Your task to perform on an android device: change notification settings in the gmail app Image 0: 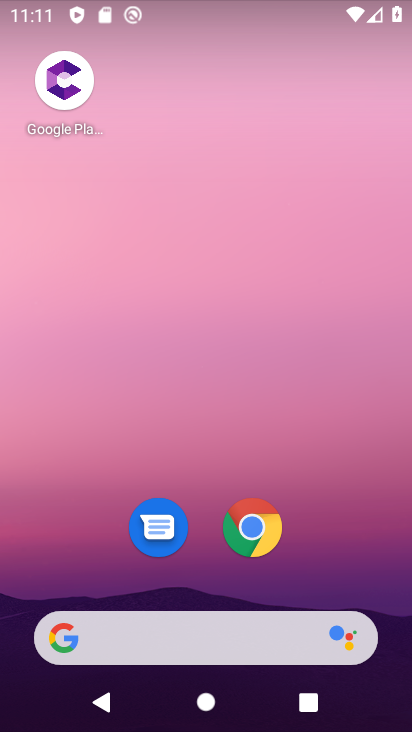
Step 0: drag from (201, 637) to (206, 83)
Your task to perform on an android device: change notification settings in the gmail app Image 1: 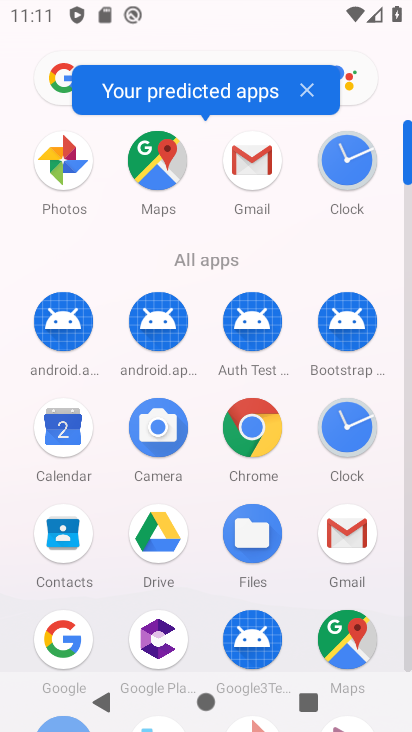
Step 1: click (344, 527)
Your task to perform on an android device: change notification settings in the gmail app Image 2: 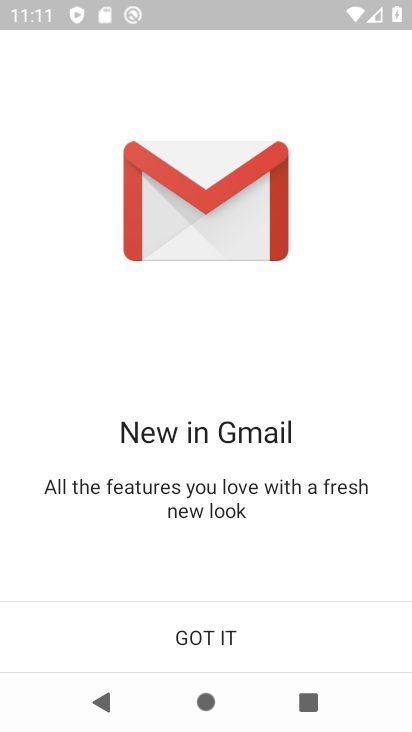
Step 2: click (243, 642)
Your task to perform on an android device: change notification settings in the gmail app Image 3: 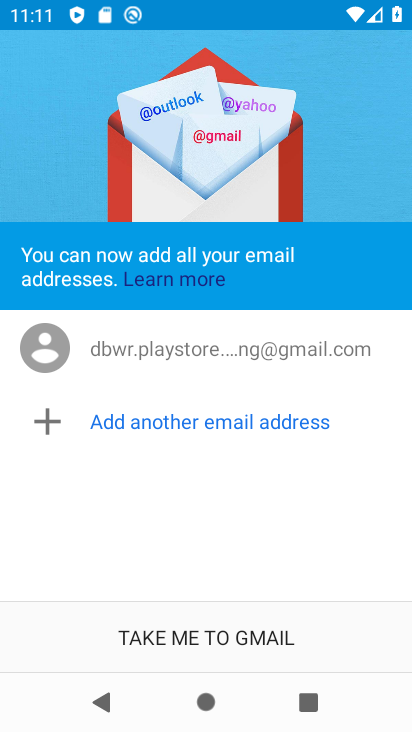
Step 3: click (183, 631)
Your task to perform on an android device: change notification settings in the gmail app Image 4: 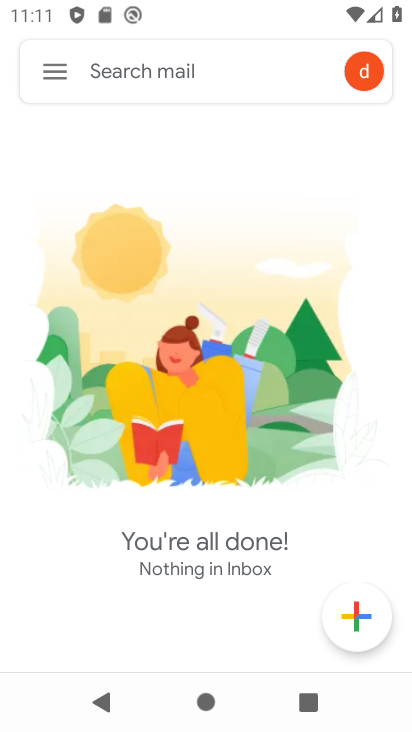
Step 4: click (54, 78)
Your task to perform on an android device: change notification settings in the gmail app Image 5: 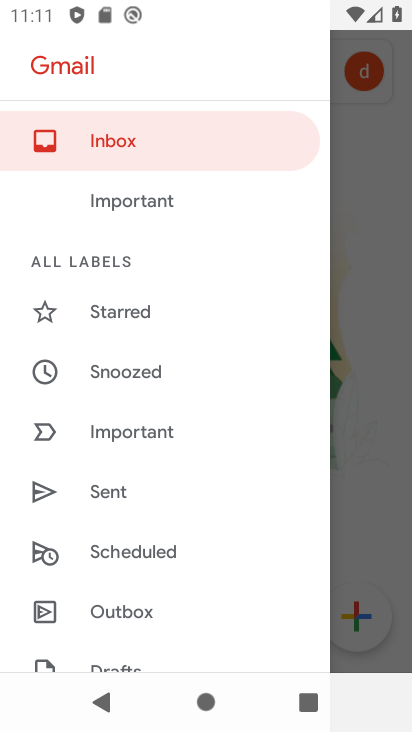
Step 5: drag from (105, 608) to (96, 0)
Your task to perform on an android device: change notification settings in the gmail app Image 6: 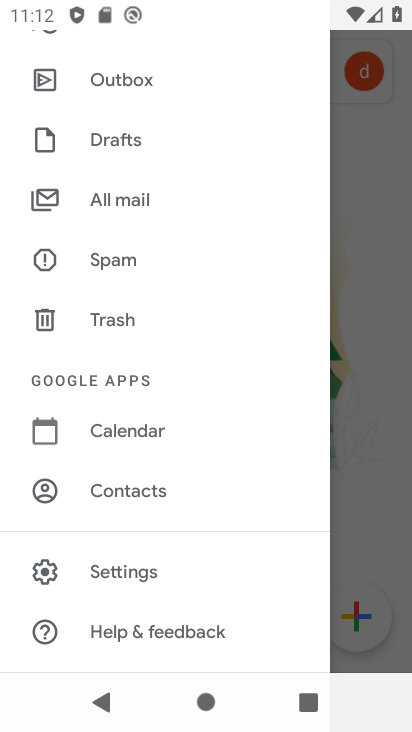
Step 6: click (121, 573)
Your task to perform on an android device: change notification settings in the gmail app Image 7: 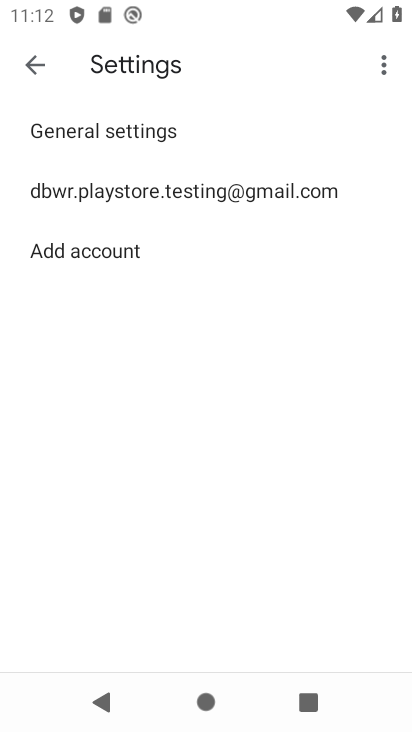
Step 7: click (163, 190)
Your task to perform on an android device: change notification settings in the gmail app Image 8: 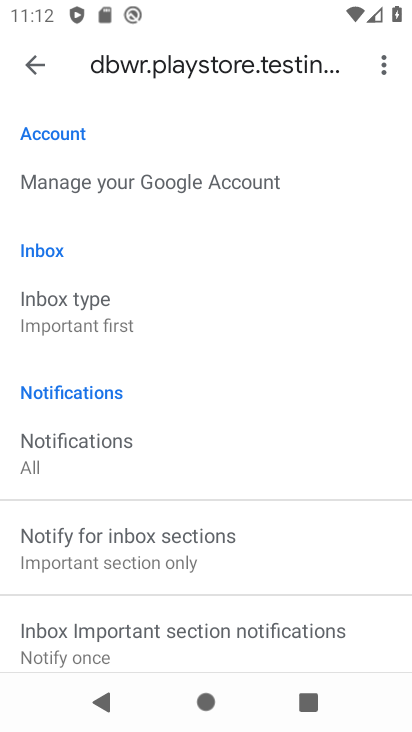
Step 8: drag from (122, 477) to (6, 34)
Your task to perform on an android device: change notification settings in the gmail app Image 9: 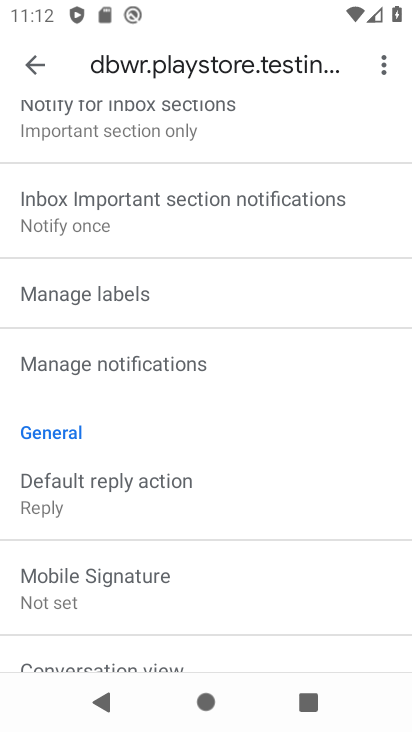
Step 9: click (97, 378)
Your task to perform on an android device: change notification settings in the gmail app Image 10: 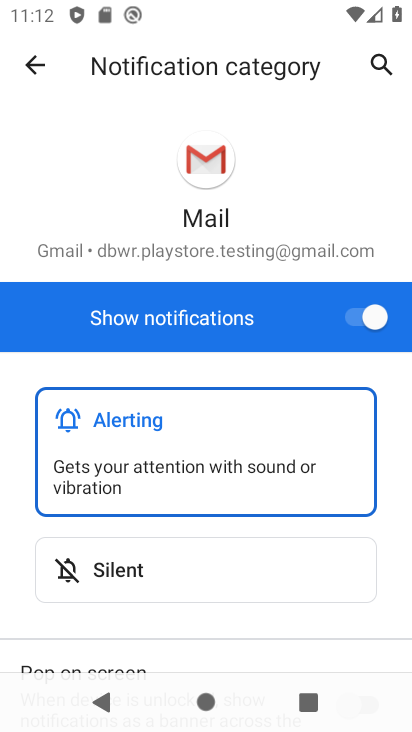
Step 10: click (350, 320)
Your task to perform on an android device: change notification settings in the gmail app Image 11: 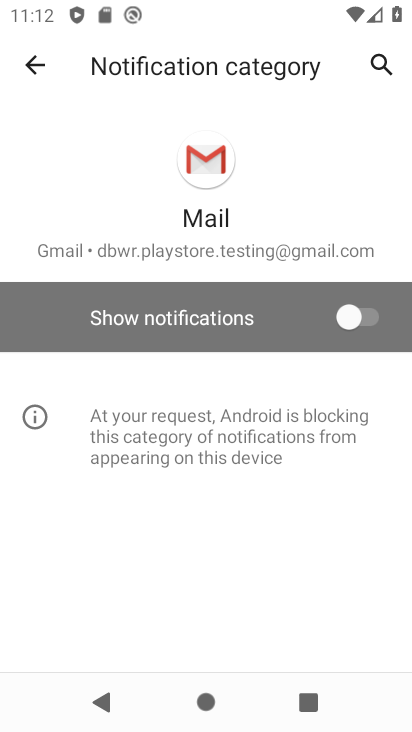
Step 11: task complete